Your task to perform on an android device: Open Yahoo.com Image 0: 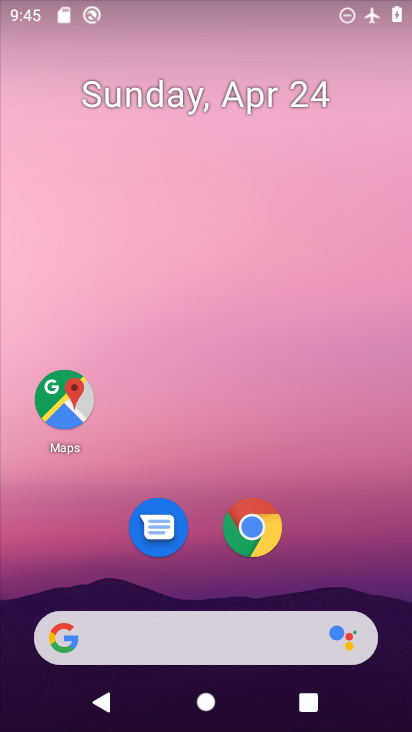
Step 0: drag from (390, 603) to (239, 50)
Your task to perform on an android device: Open Yahoo.com Image 1: 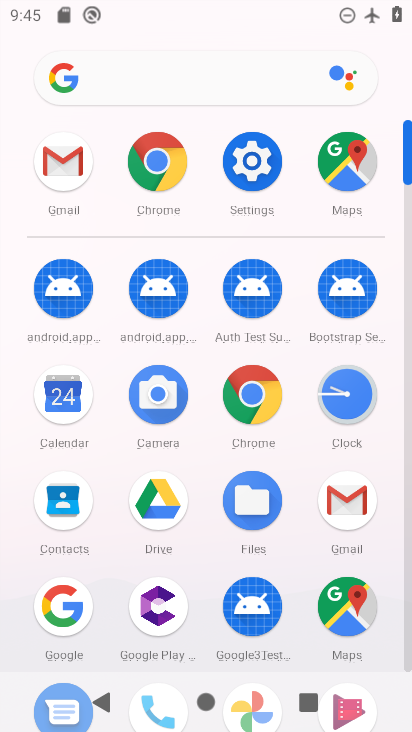
Step 1: click (274, 394)
Your task to perform on an android device: Open Yahoo.com Image 2: 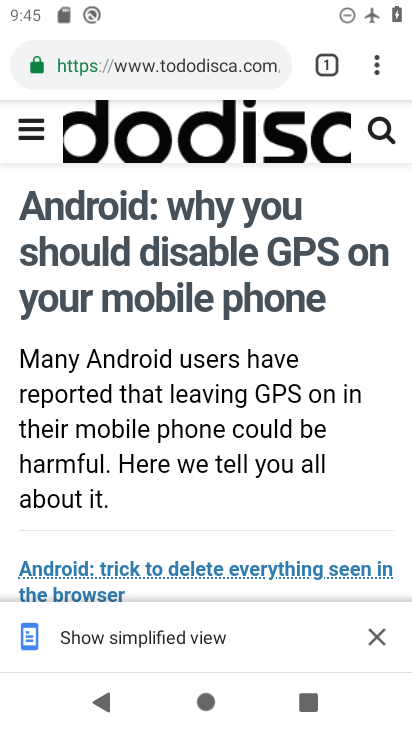
Step 2: press back button
Your task to perform on an android device: Open Yahoo.com Image 3: 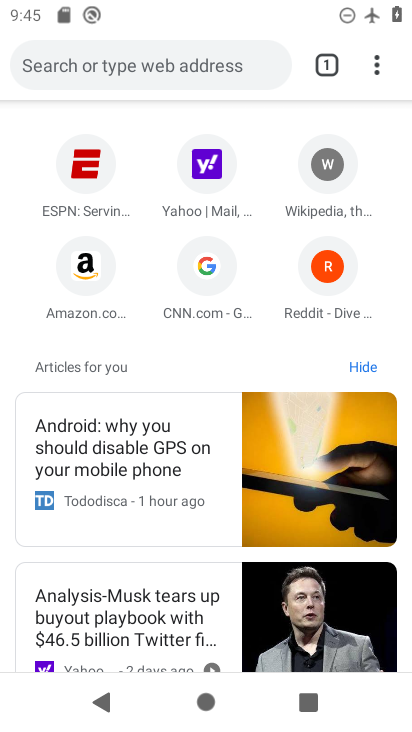
Step 3: click (217, 159)
Your task to perform on an android device: Open Yahoo.com Image 4: 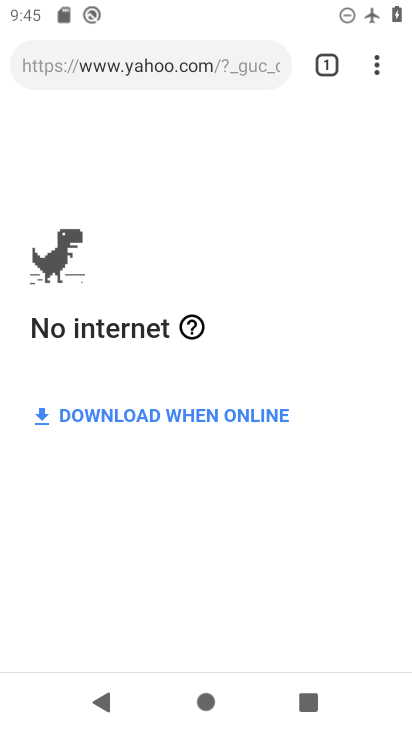
Step 4: task complete